Your task to perform on an android device: check battery use Image 0: 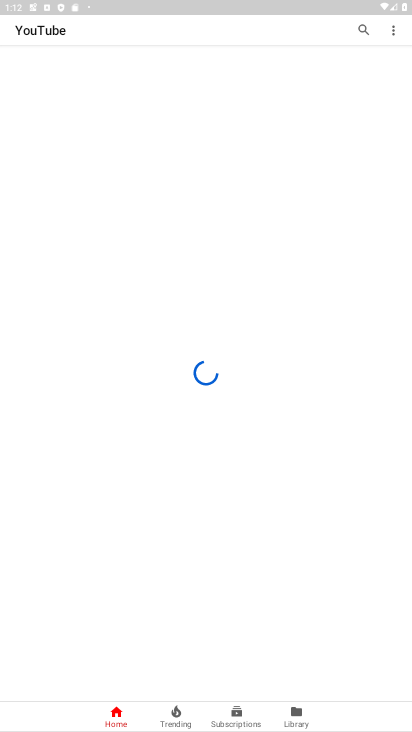
Step 0: press home button
Your task to perform on an android device: check battery use Image 1: 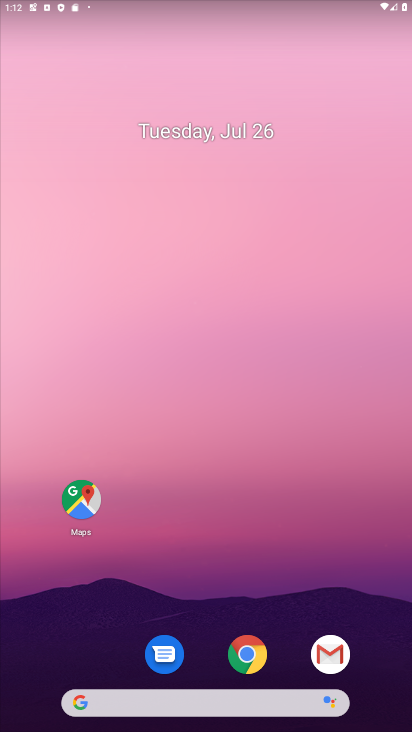
Step 1: drag from (266, 706) to (248, 217)
Your task to perform on an android device: check battery use Image 2: 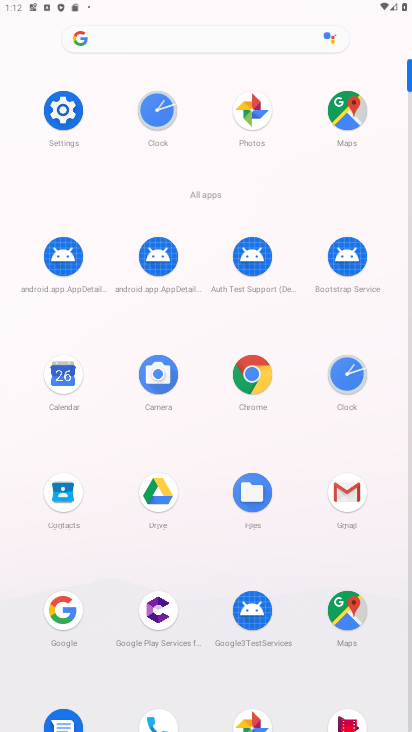
Step 2: drag from (65, 117) to (370, 634)
Your task to perform on an android device: check battery use Image 3: 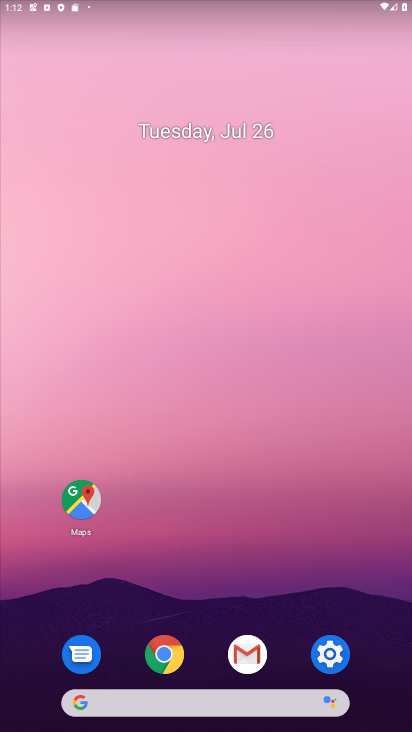
Step 3: click (338, 657)
Your task to perform on an android device: check battery use Image 4: 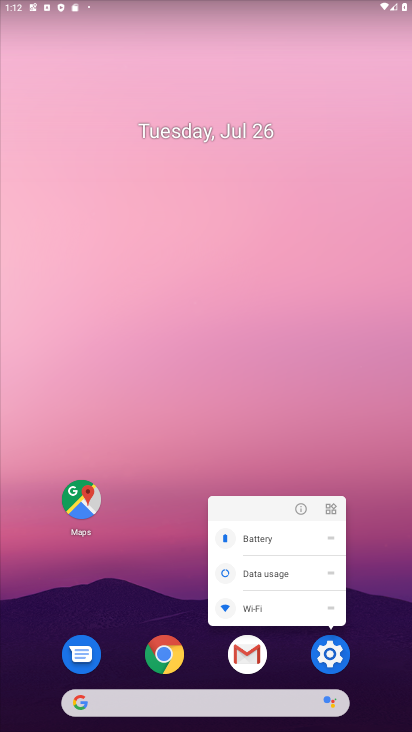
Step 4: click (316, 656)
Your task to perform on an android device: check battery use Image 5: 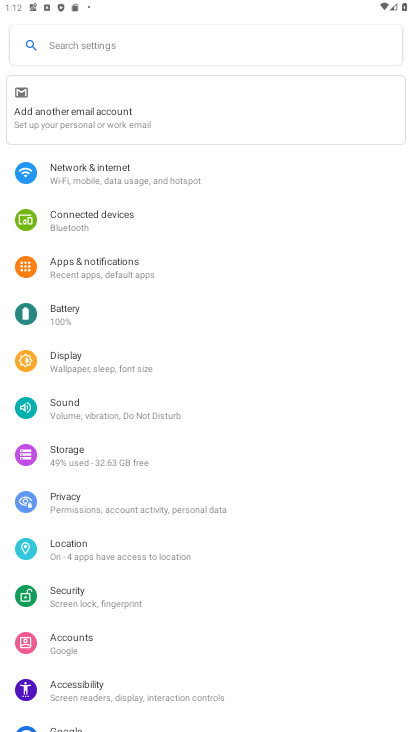
Step 5: click (83, 322)
Your task to perform on an android device: check battery use Image 6: 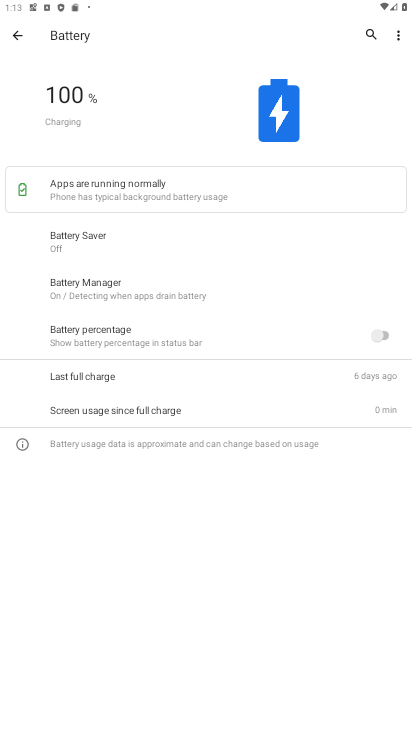
Step 6: task complete